Your task to perform on an android device: set the stopwatch Image 0: 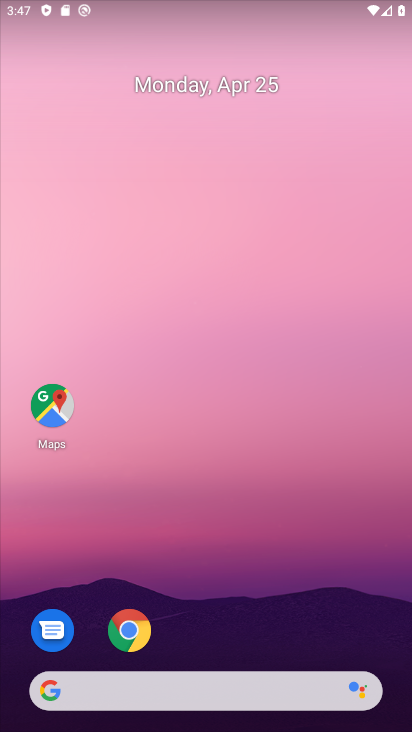
Step 0: drag from (267, 423) to (319, 50)
Your task to perform on an android device: set the stopwatch Image 1: 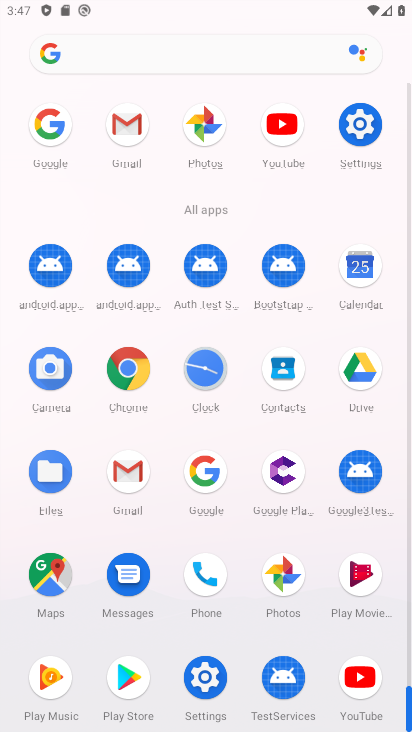
Step 1: click (183, 382)
Your task to perform on an android device: set the stopwatch Image 2: 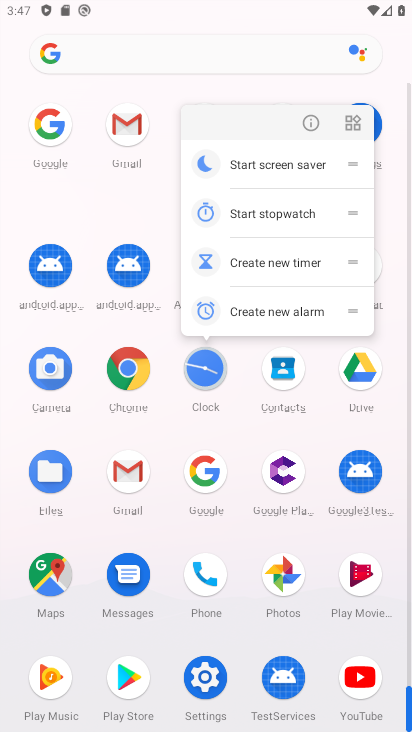
Step 2: click (205, 375)
Your task to perform on an android device: set the stopwatch Image 3: 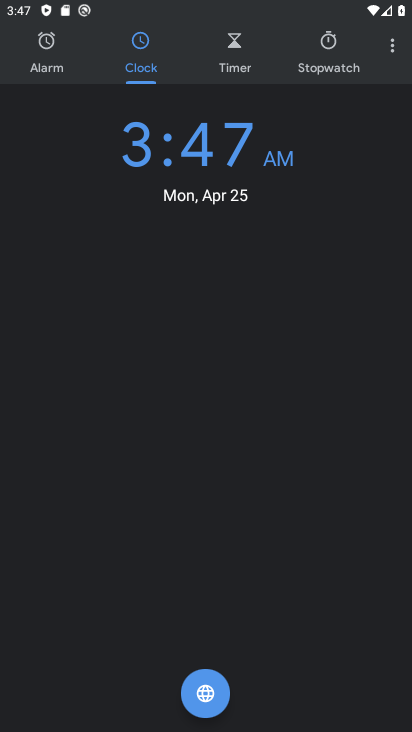
Step 3: click (222, 357)
Your task to perform on an android device: set the stopwatch Image 4: 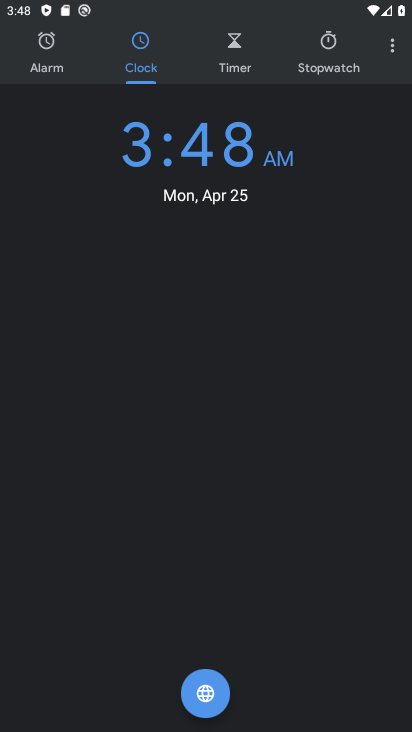
Step 4: click (341, 51)
Your task to perform on an android device: set the stopwatch Image 5: 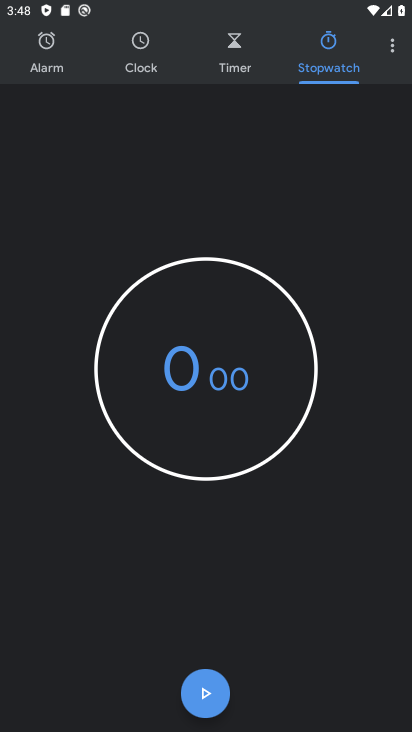
Step 5: click (191, 695)
Your task to perform on an android device: set the stopwatch Image 6: 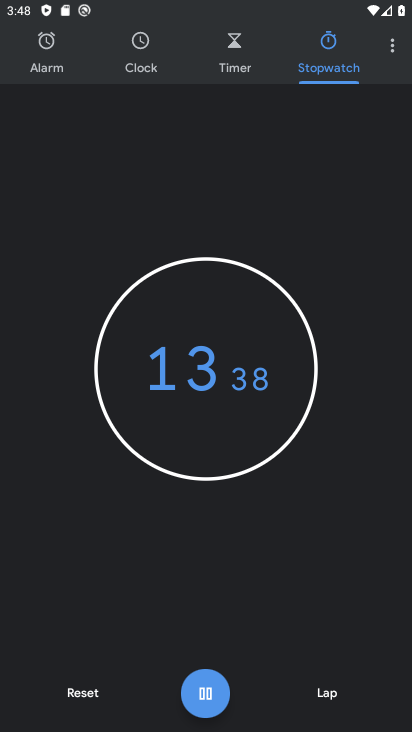
Step 6: task complete